Your task to perform on an android device: Open the phone app and click the voicemail tab. Image 0: 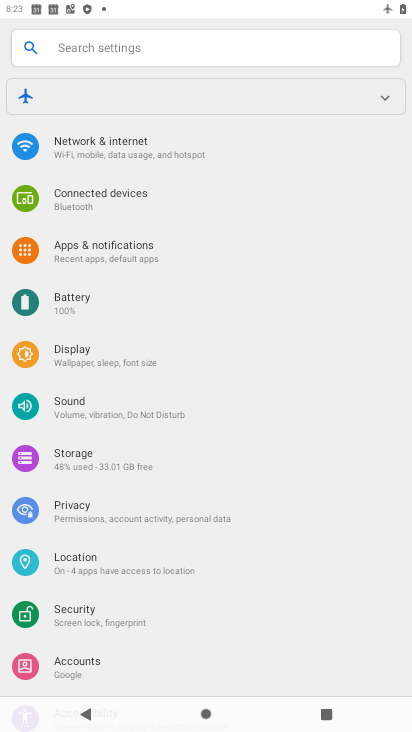
Step 0: press home button
Your task to perform on an android device: Open the phone app and click the voicemail tab. Image 1: 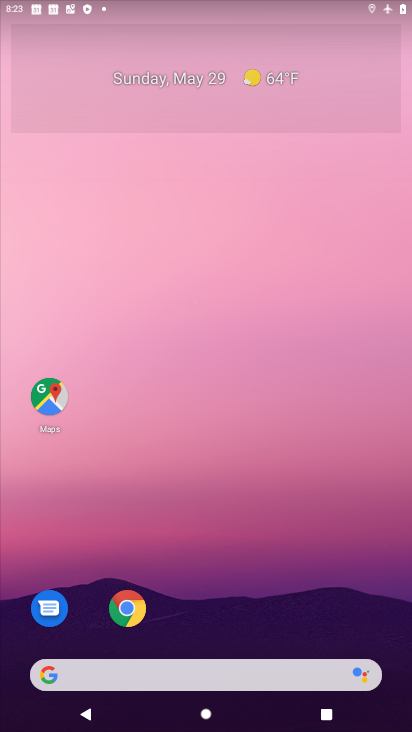
Step 1: drag from (255, 545) to (204, 331)
Your task to perform on an android device: Open the phone app and click the voicemail tab. Image 2: 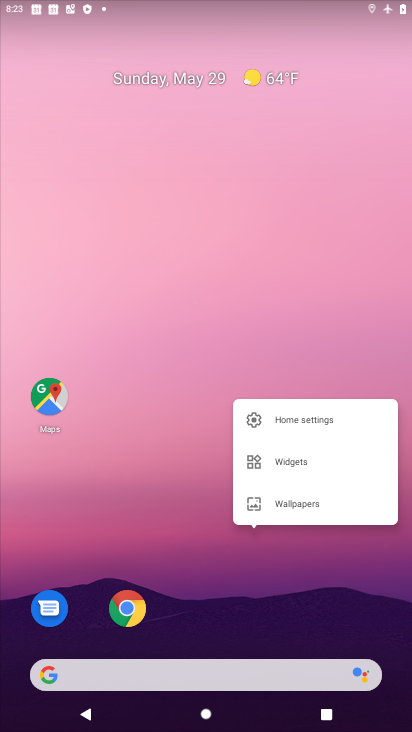
Step 2: click (169, 331)
Your task to perform on an android device: Open the phone app and click the voicemail tab. Image 3: 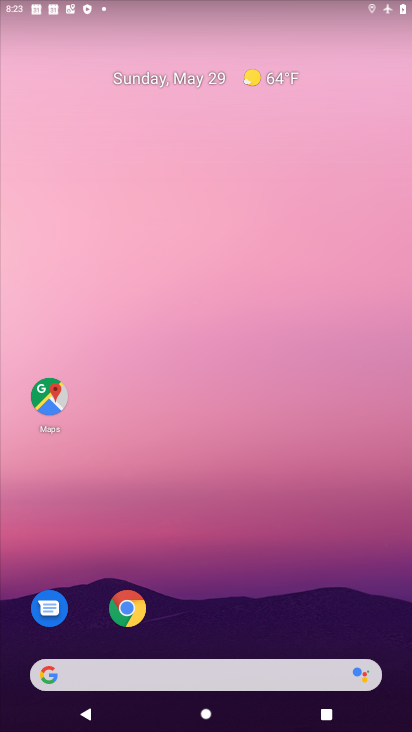
Step 3: drag from (225, 540) to (208, 53)
Your task to perform on an android device: Open the phone app and click the voicemail tab. Image 4: 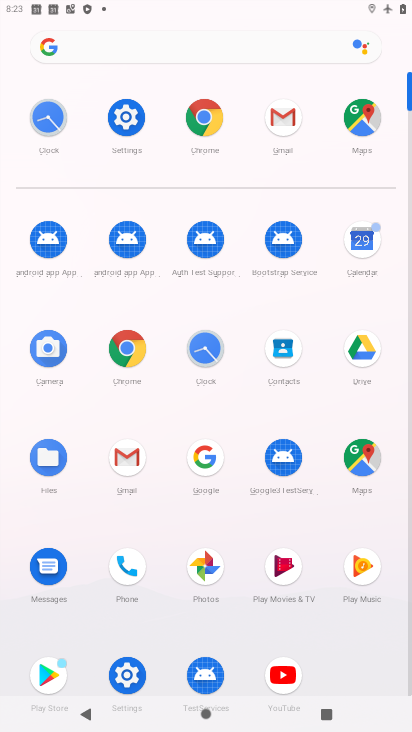
Step 4: click (136, 562)
Your task to perform on an android device: Open the phone app and click the voicemail tab. Image 5: 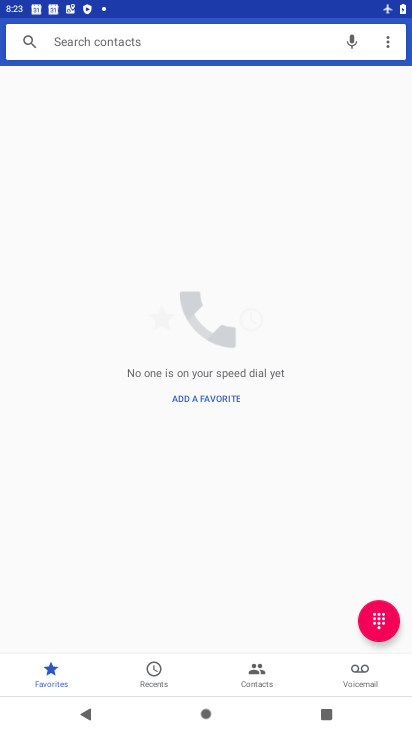
Step 5: click (356, 682)
Your task to perform on an android device: Open the phone app and click the voicemail tab. Image 6: 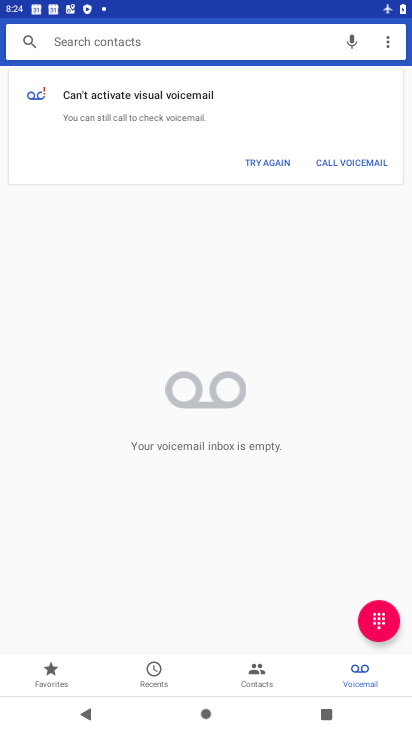
Step 6: task complete